Your task to perform on an android device: Show me recent news Image 0: 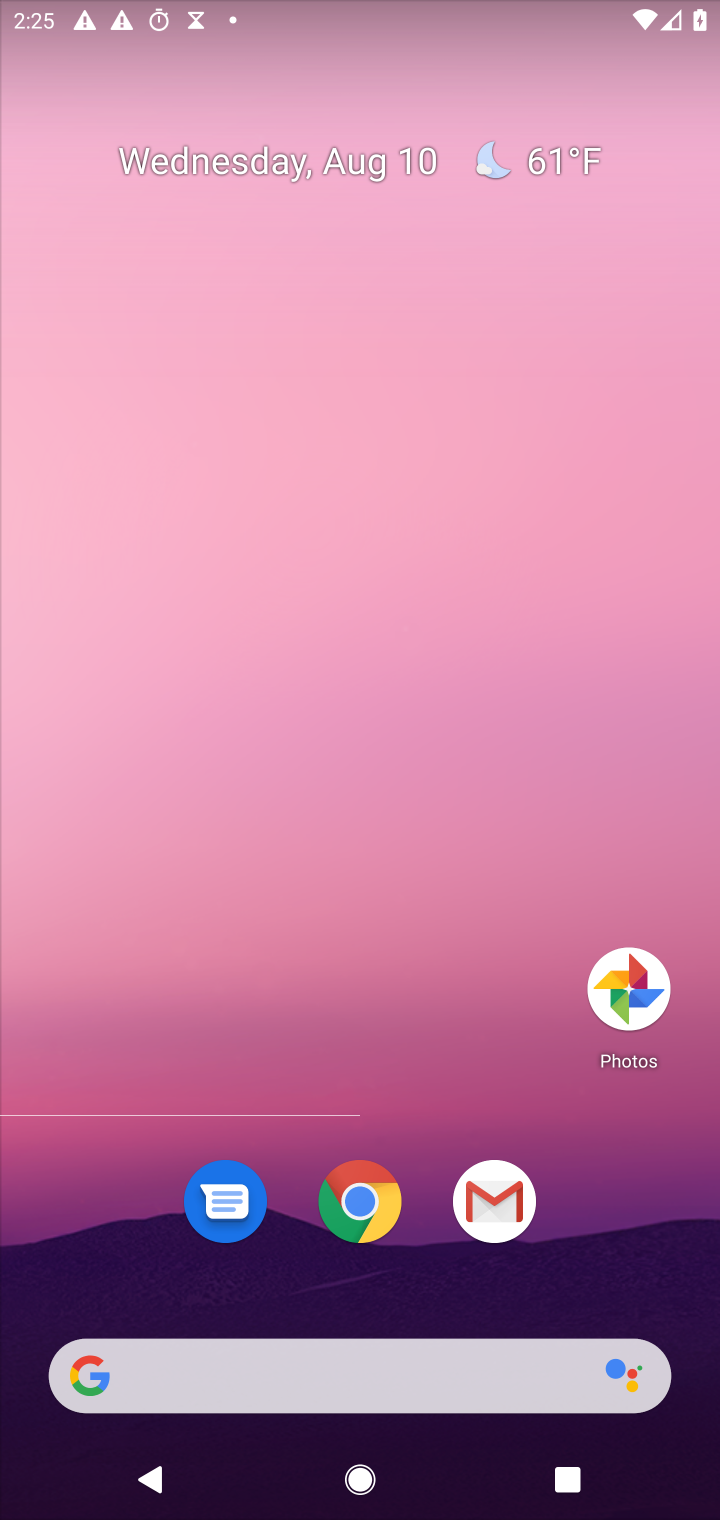
Step 0: click (89, 1391)
Your task to perform on an android device: Show me recent news Image 1: 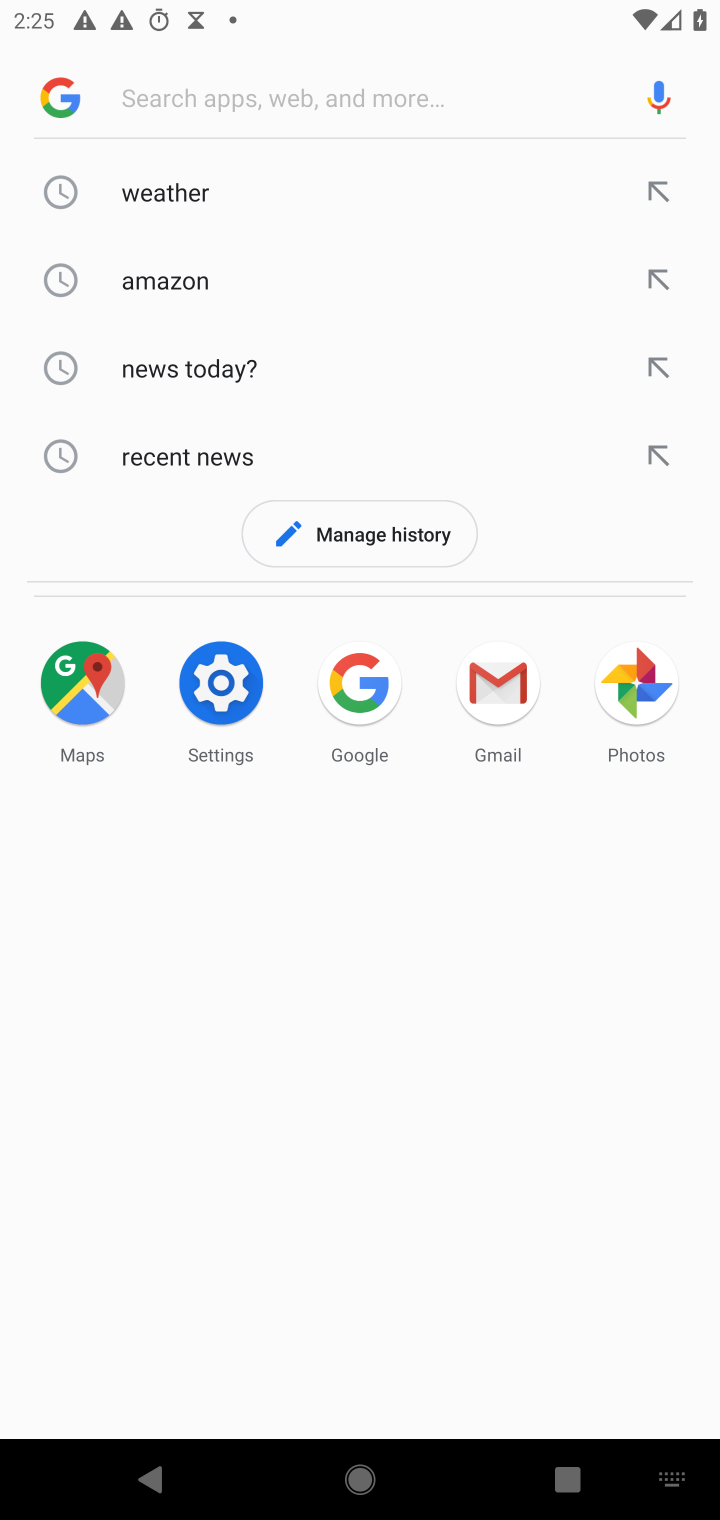
Step 1: click (183, 463)
Your task to perform on an android device: Show me recent news Image 2: 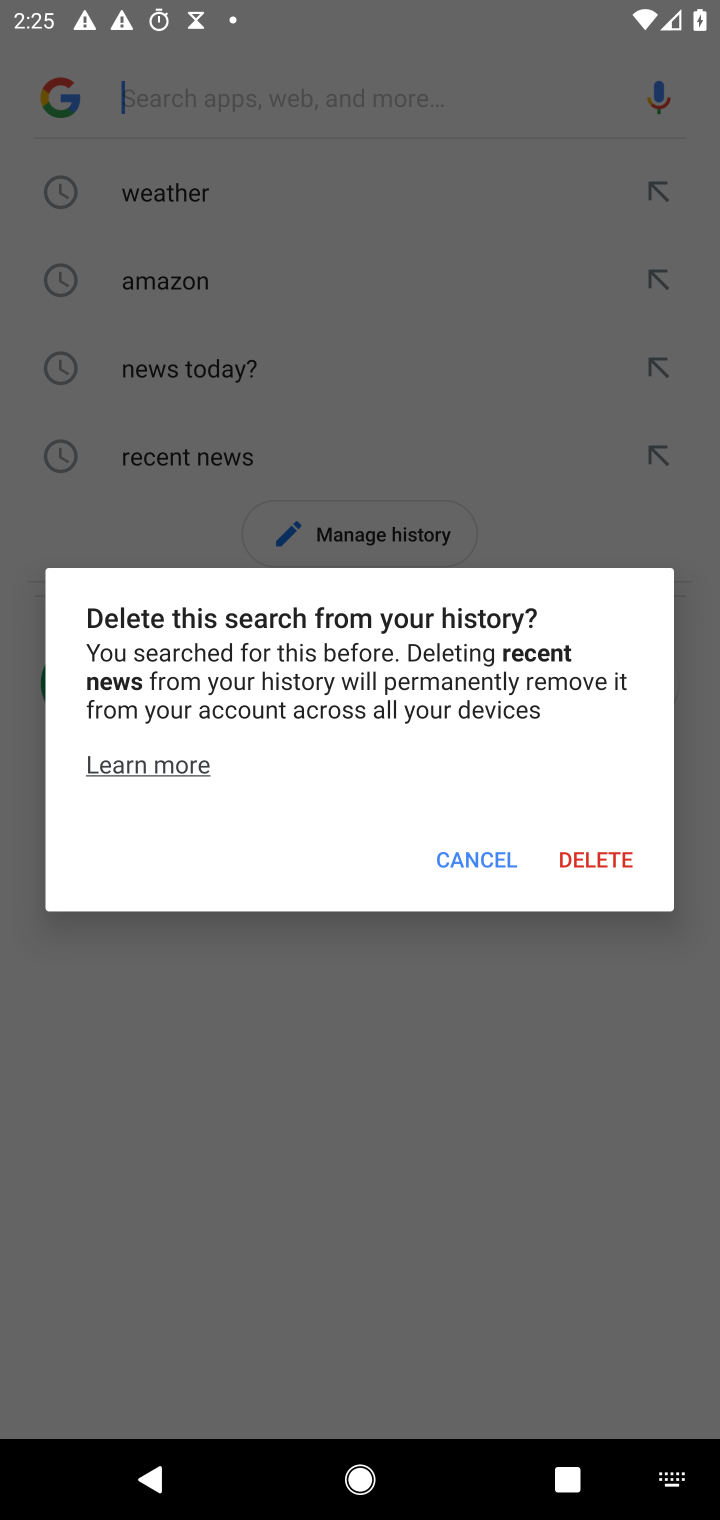
Step 2: click (476, 863)
Your task to perform on an android device: Show me recent news Image 3: 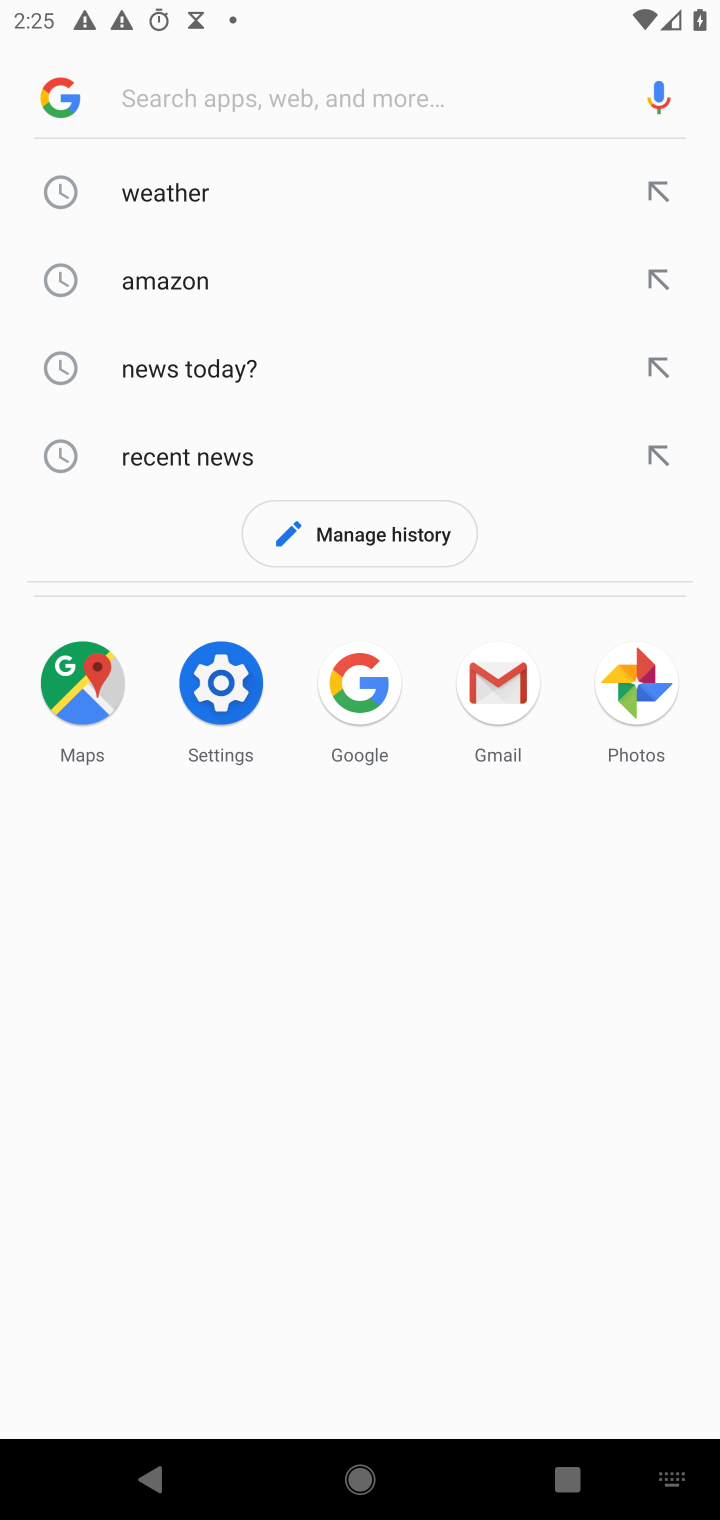
Step 3: type "recent news"
Your task to perform on an android device: Show me recent news Image 4: 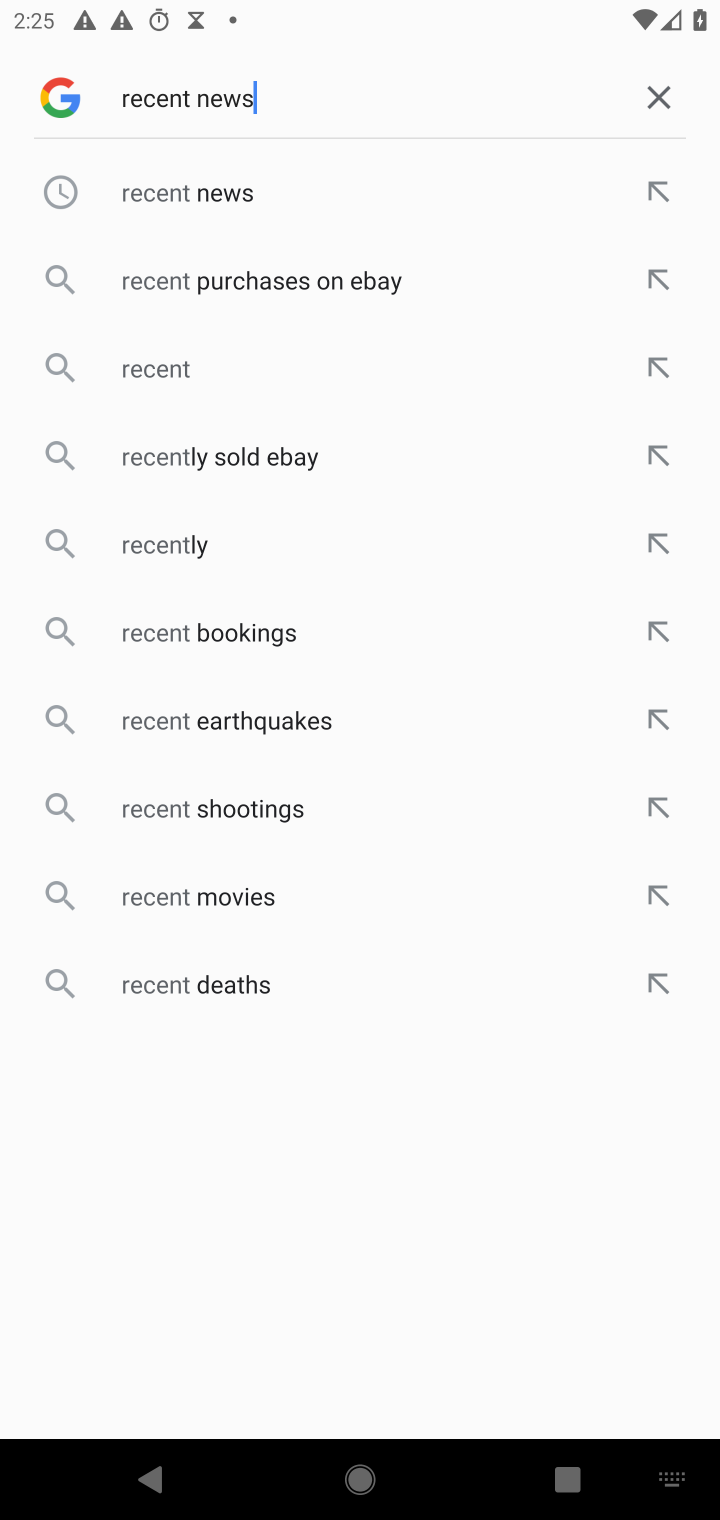
Step 4: press enter
Your task to perform on an android device: Show me recent news Image 5: 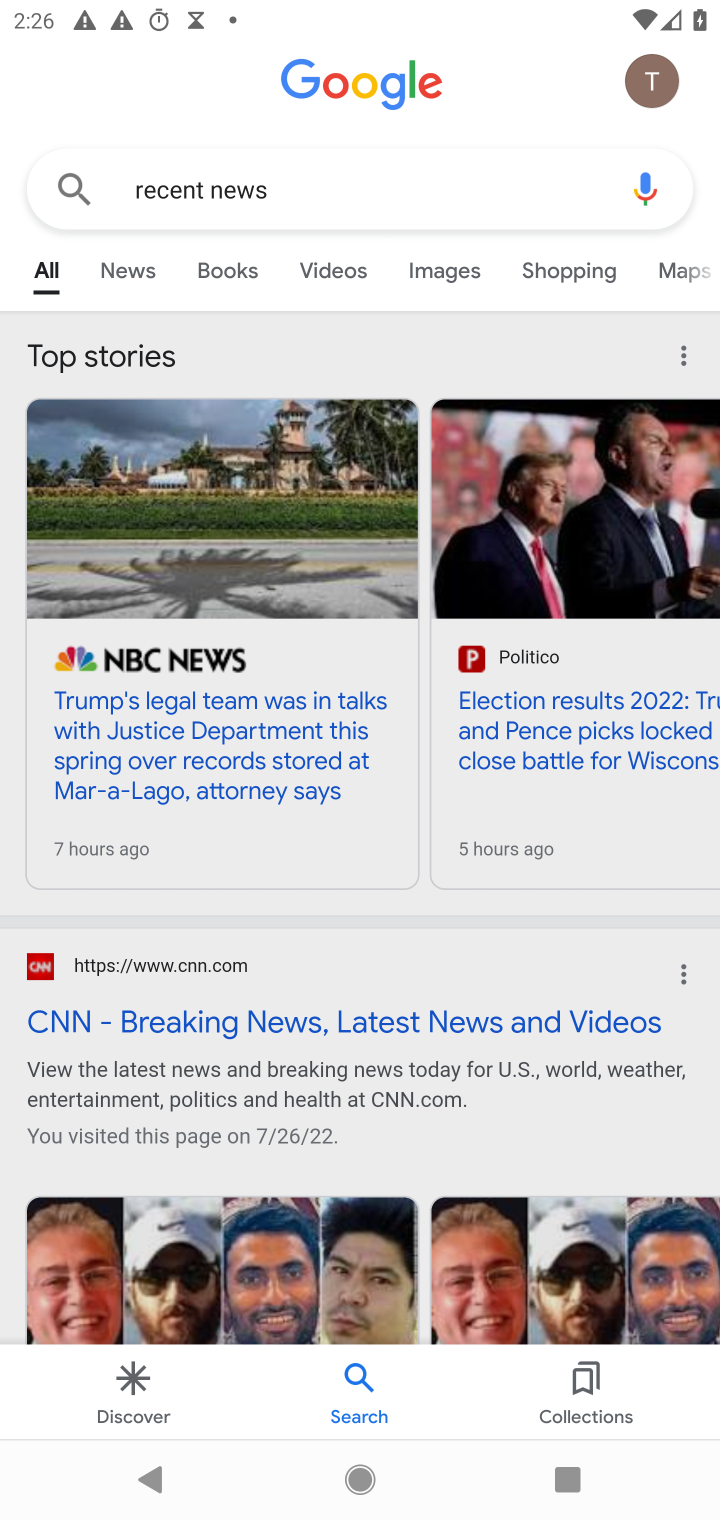
Step 5: task complete